Your task to perform on an android device: Check out the new nike air max 2020. Image 0: 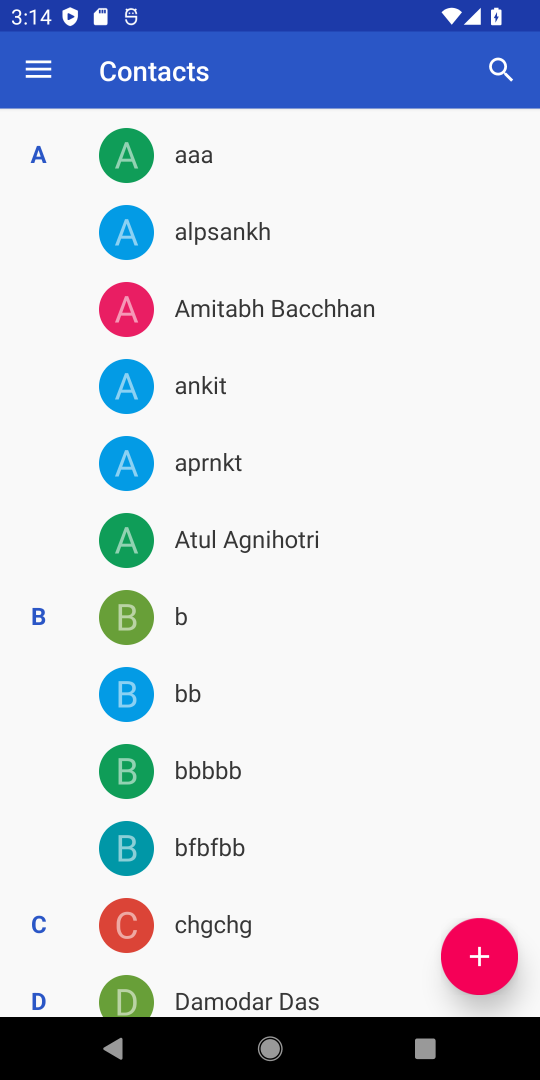
Step 0: press home button
Your task to perform on an android device: Check out the new nike air max 2020. Image 1: 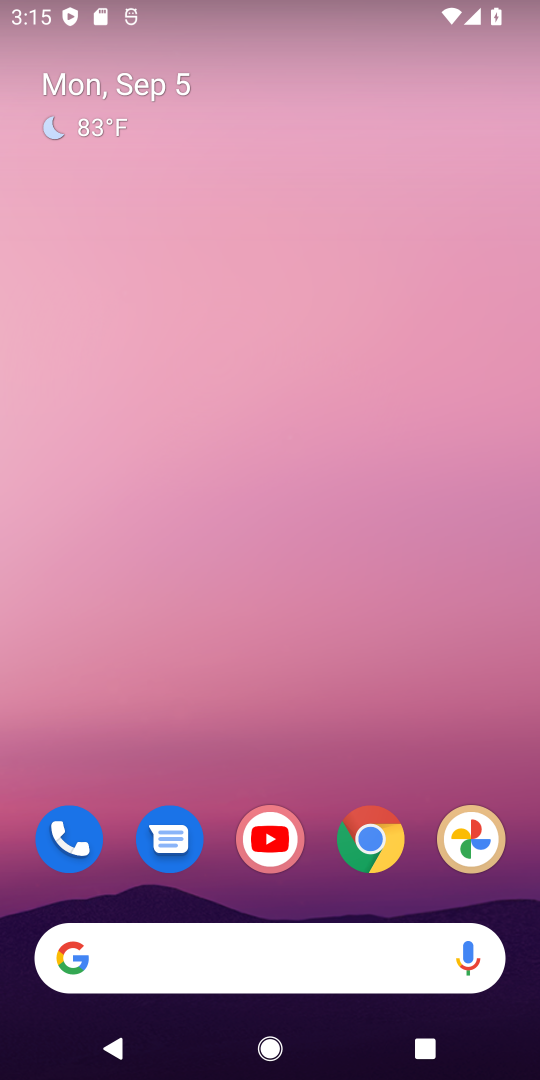
Step 1: click (367, 859)
Your task to perform on an android device: Check out the new nike air max 2020. Image 2: 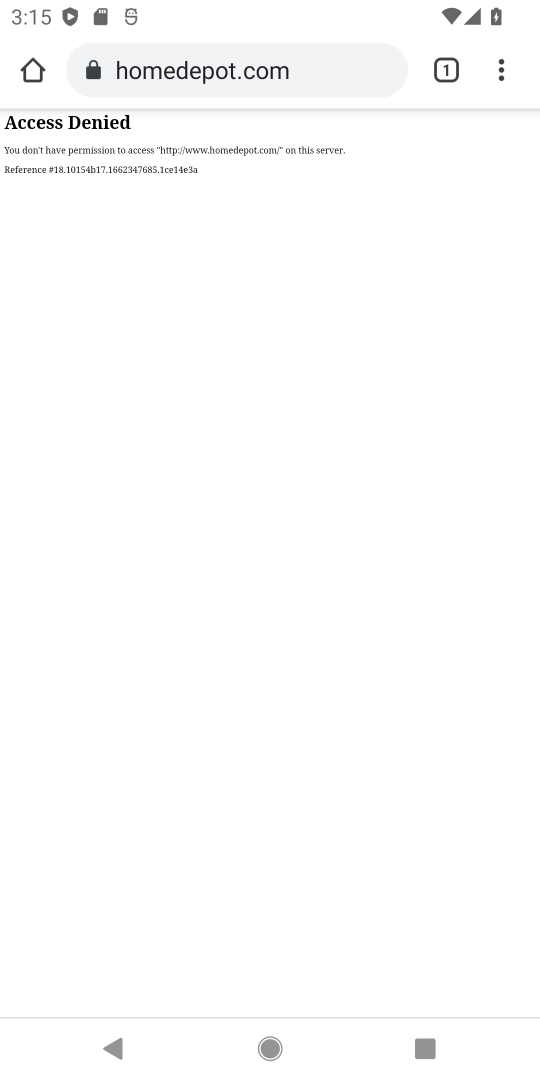
Step 2: click (234, 69)
Your task to perform on an android device: Check out the new nike air max 2020. Image 3: 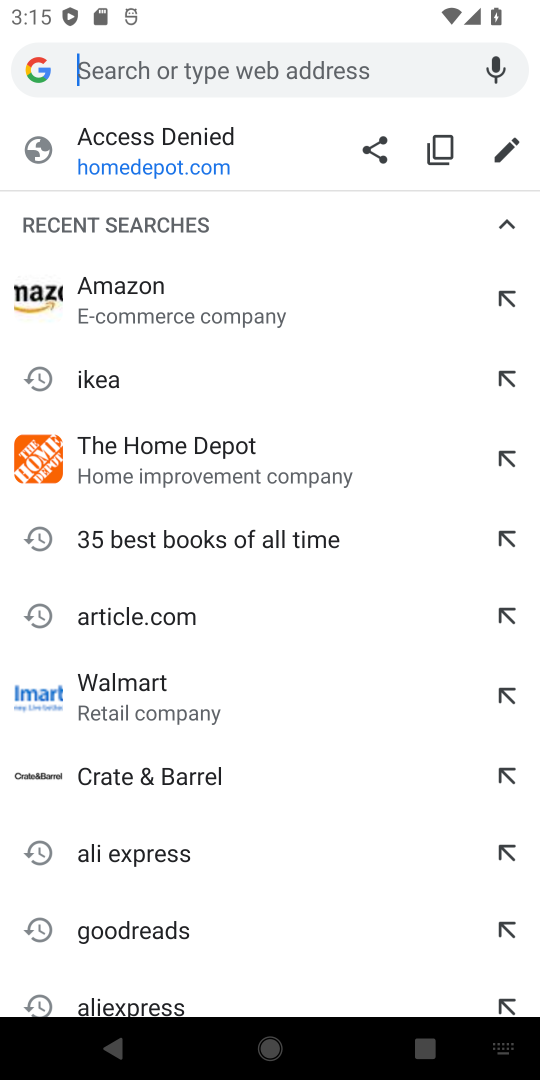
Step 3: type ""
Your task to perform on an android device: Check out the new nike air max 2020. Image 4: 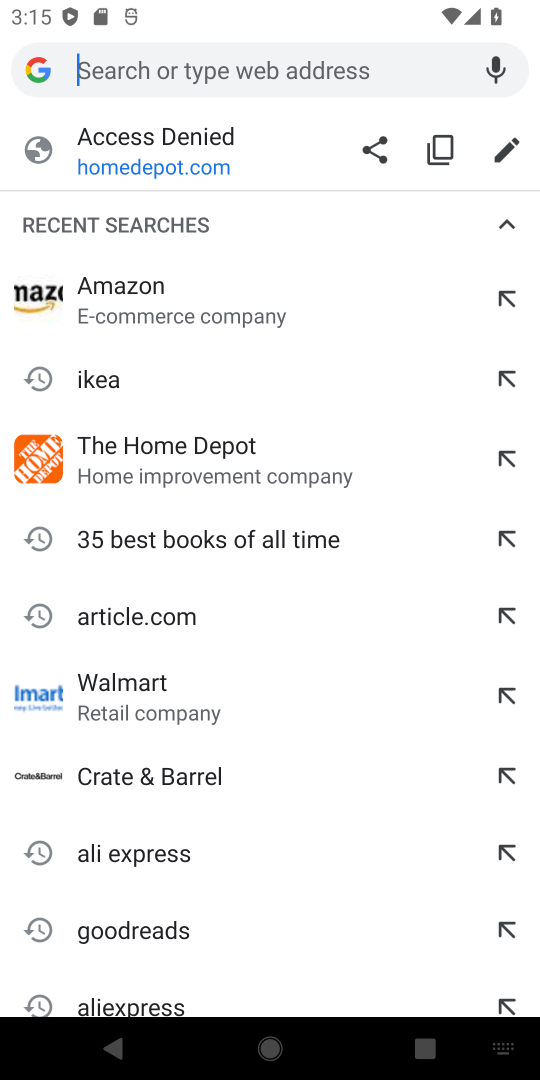
Step 4: type "new nike air max 2020"
Your task to perform on an android device: Check out the new nike air max 2020. Image 5: 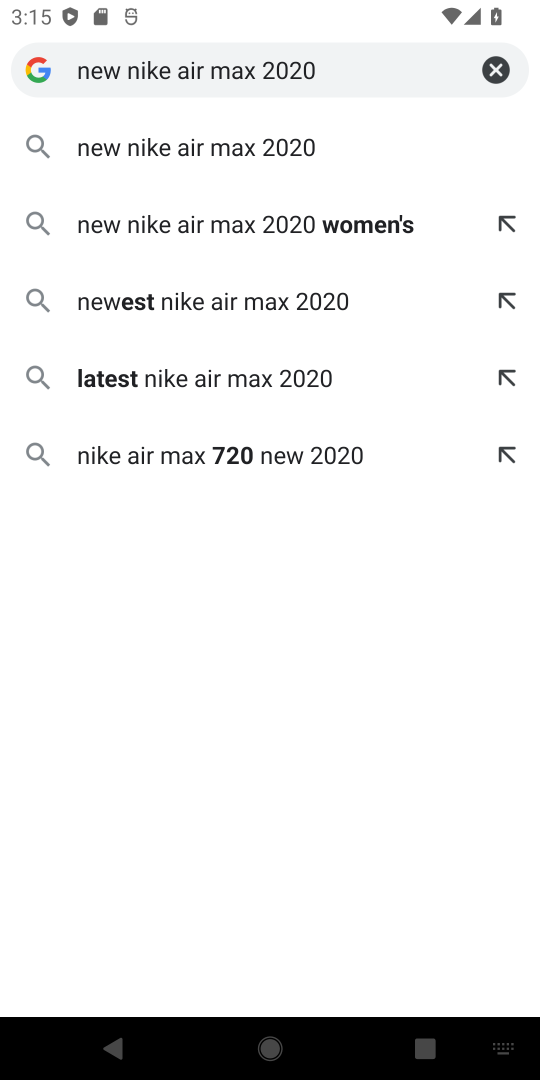
Step 5: click (382, 58)
Your task to perform on an android device: Check out the new nike air max 2020. Image 6: 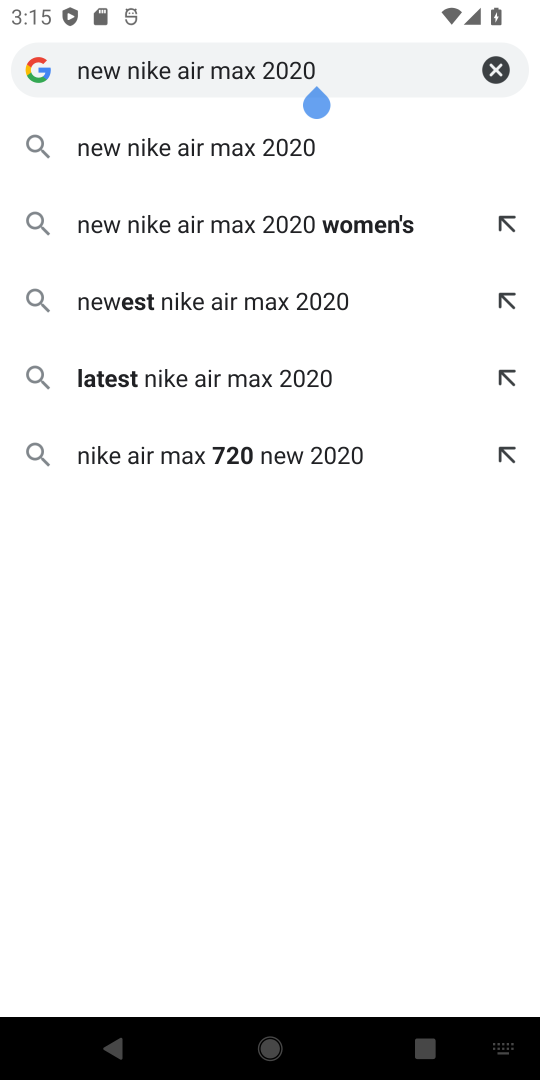
Step 6: click (308, 133)
Your task to perform on an android device: Check out the new nike air max 2020. Image 7: 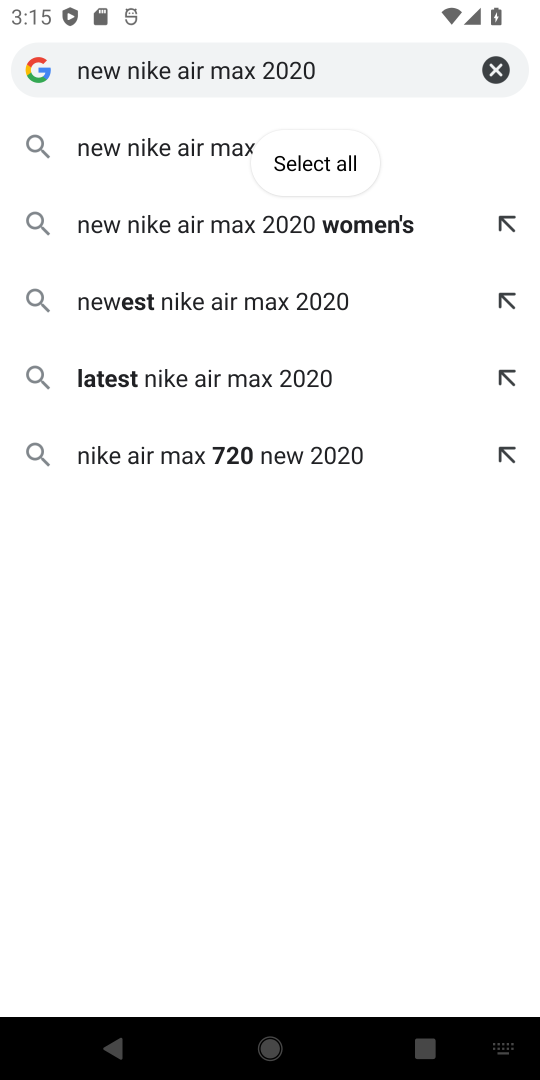
Step 7: click (150, 154)
Your task to perform on an android device: Check out the new nike air max 2020. Image 8: 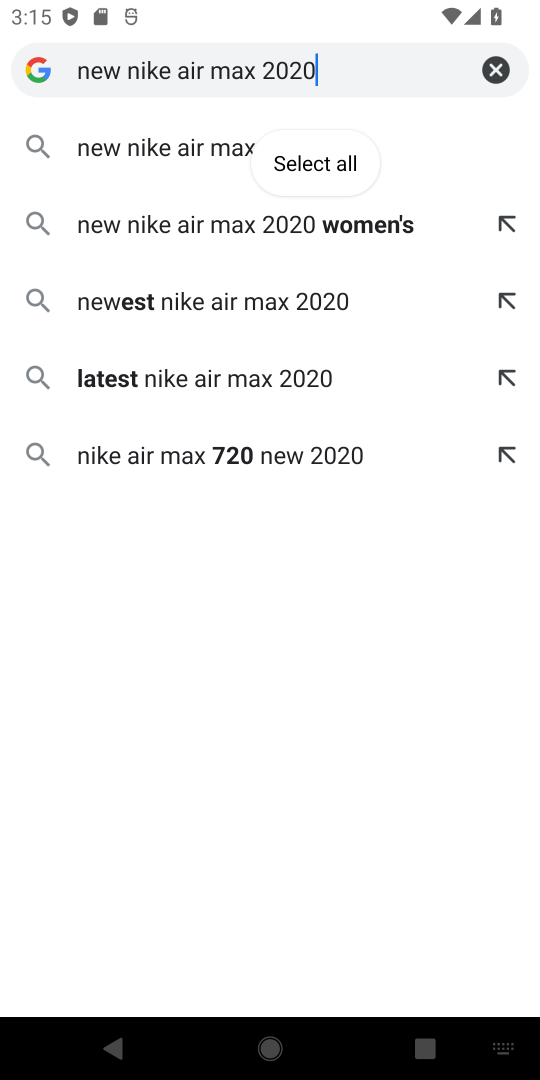
Step 8: click (150, 154)
Your task to perform on an android device: Check out the new nike air max 2020. Image 9: 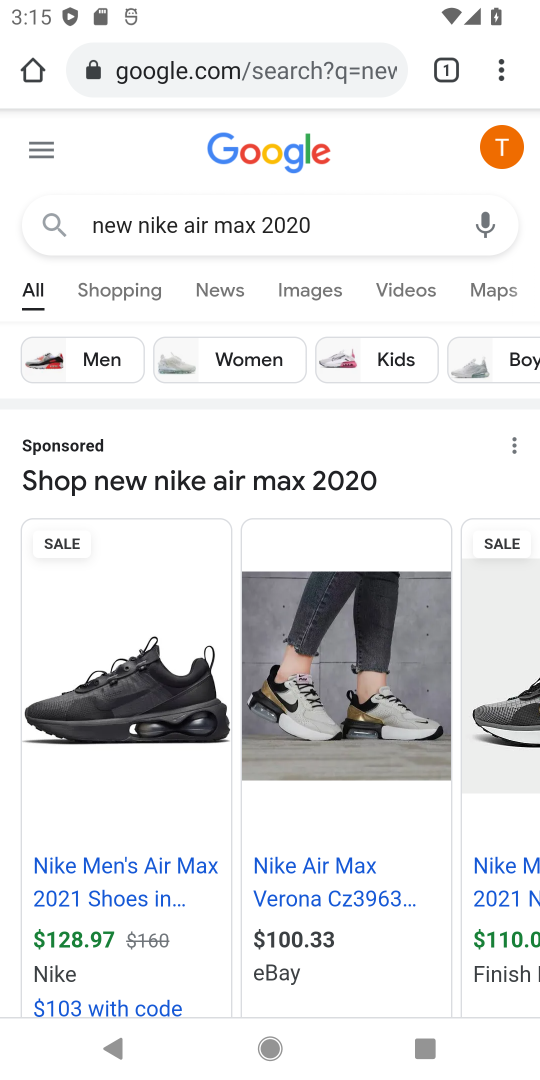
Step 9: task complete